Your task to perform on an android device: delete browsing data in the chrome app Image 0: 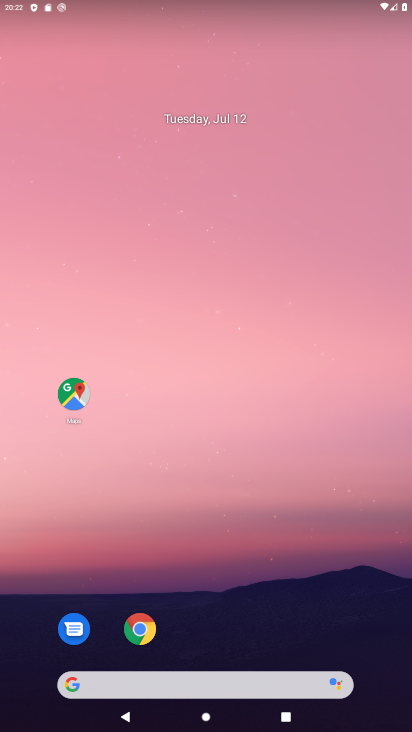
Step 0: click (141, 630)
Your task to perform on an android device: delete browsing data in the chrome app Image 1: 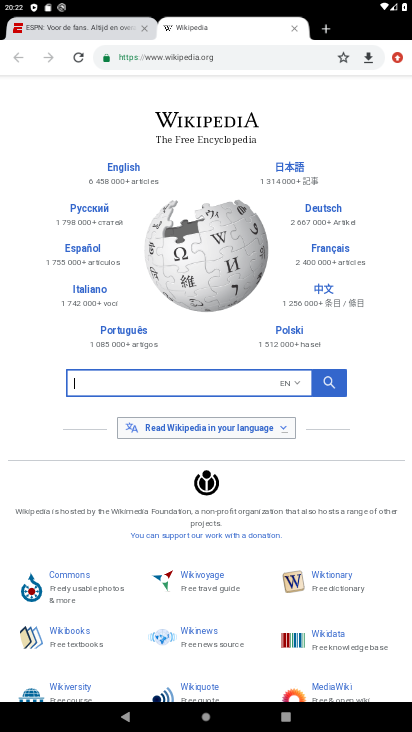
Step 1: click (398, 53)
Your task to perform on an android device: delete browsing data in the chrome app Image 2: 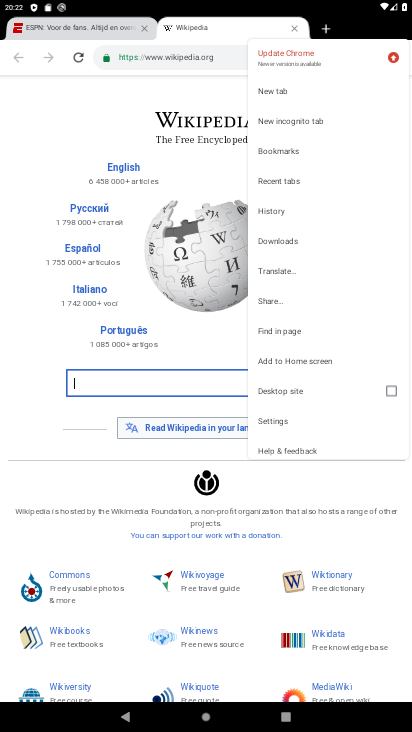
Step 2: click (280, 207)
Your task to perform on an android device: delete browsing data in the chrome app Image 3: 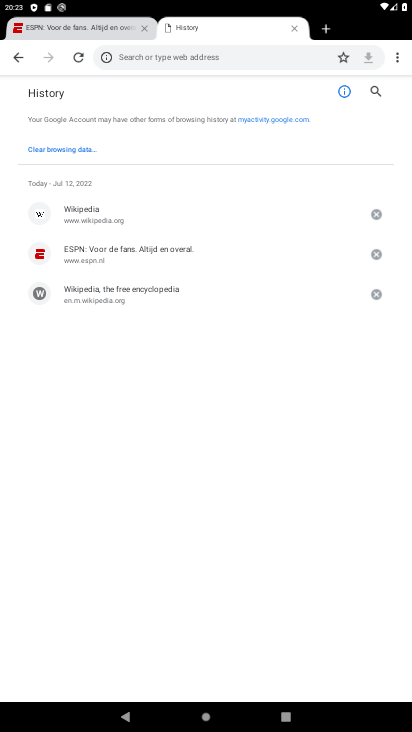
Step 3: click (49, 147)
Your task to perform on an android device: delete browsing data in the chrome app Image 4: 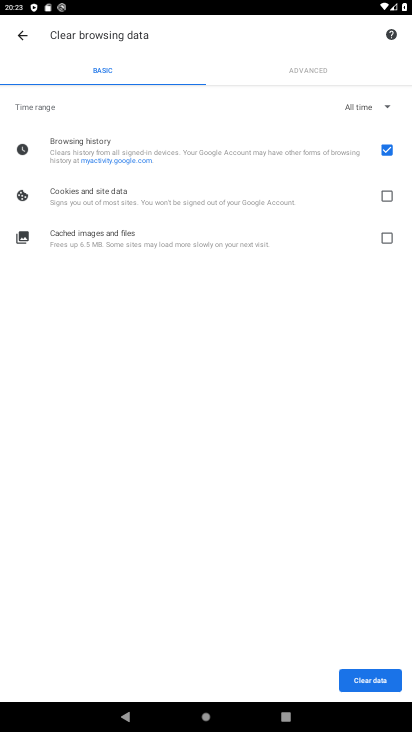
Step 4: click (386, 674)
Your task to perform on an android device: delete browsing data in the chrome app Image 5: 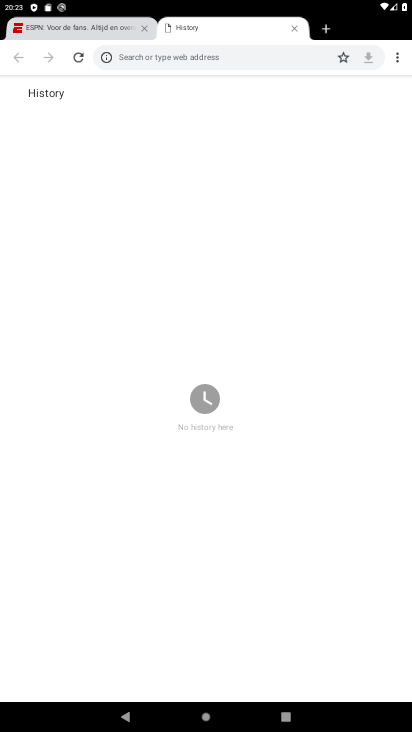
Step 5: task complete